Your task to perform on an android device: Open Google Image 0: 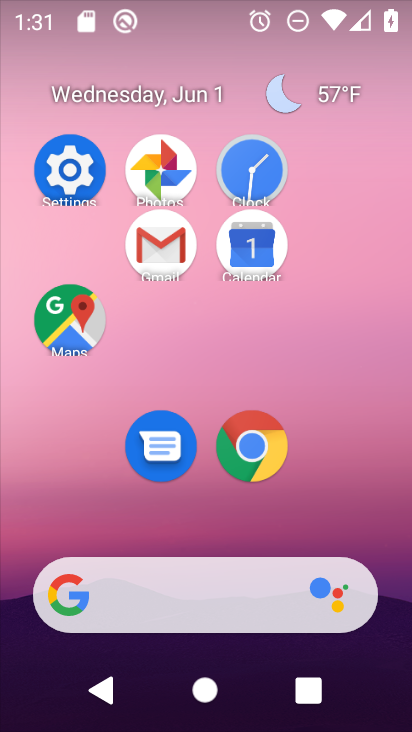
Step 0: drag from (314, 512) to (382, 25)
Your task to perform on an android device: Open Google Image 1: 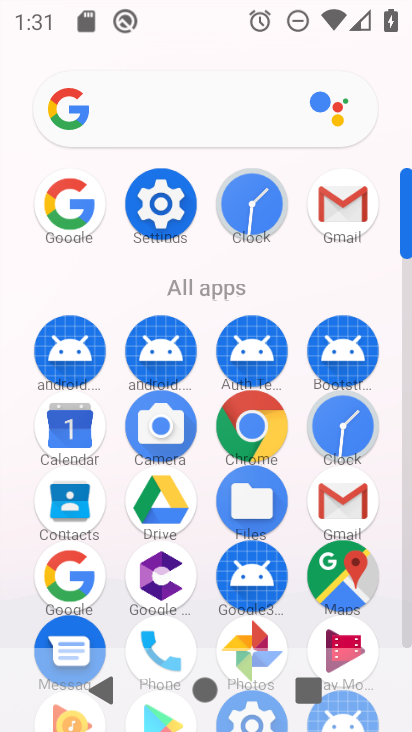
Step 1: click (74, 192)
Your task to perform on an android device: Open Google Image 2: 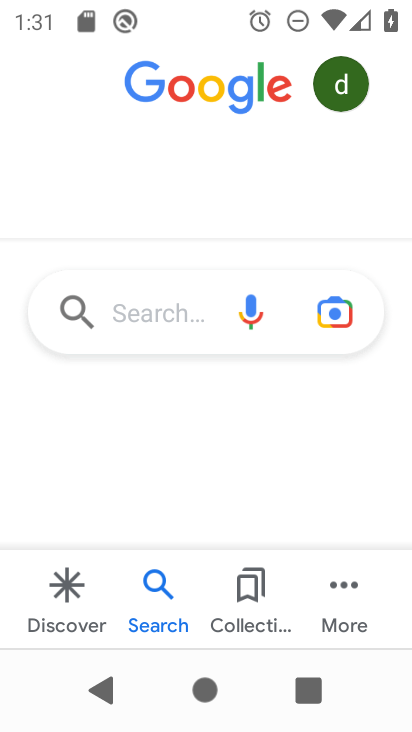
Step 2: task complete